Your task to perform on an android device: manage bookmarks in the chrome app Image 0: 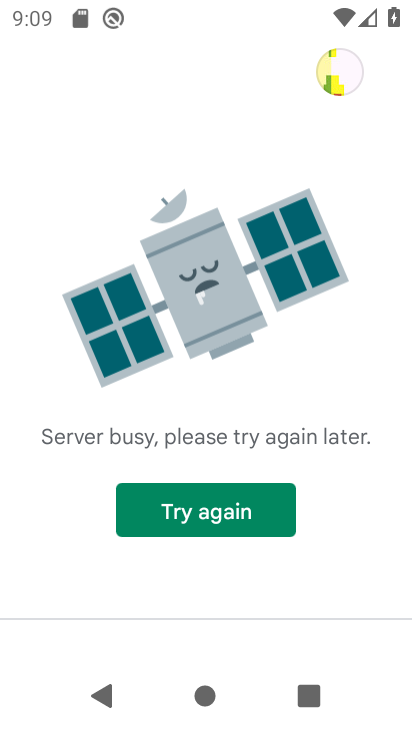
Step 0: press home button
Your task to perform on an android device: manage bookmarks in the chrome app Image 1: 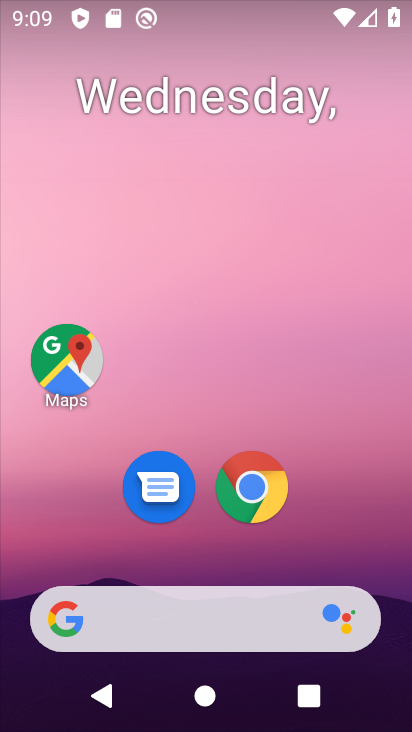
Step 1: click (266, 474)
Your task to perform on an android device: manage bookmarks in the chrome app Image 2: 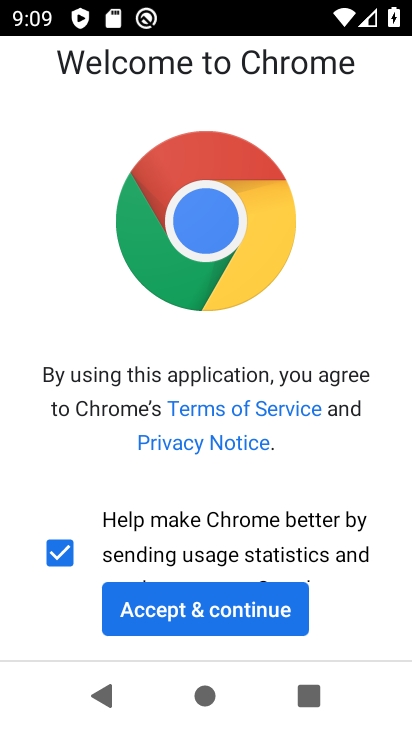
Step 2: click (220, 605)
Your task to perform on an android device: manage bookmarks in the chrome app Image 3: 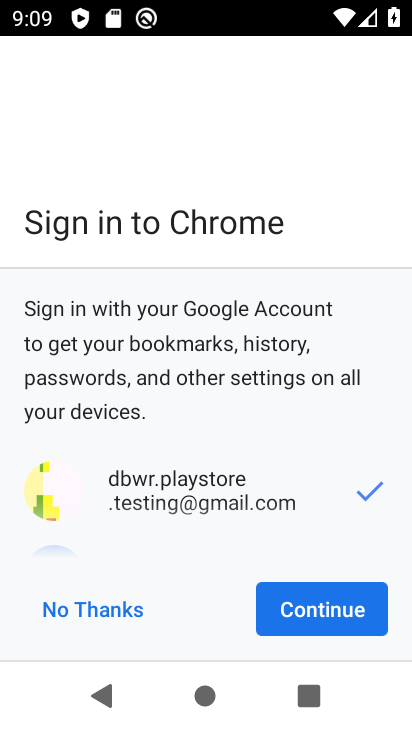
Step 3: click (283, 605)
Your task to perform on an android device: manage bookmarks in the chrome app Image 4: 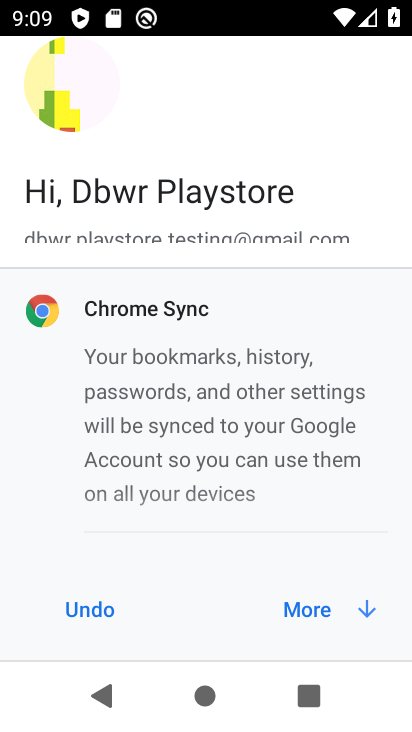
Step 4: click (320, 609)
Your task to perform on an android device: manage bookmarks in the chrome app Image 5: 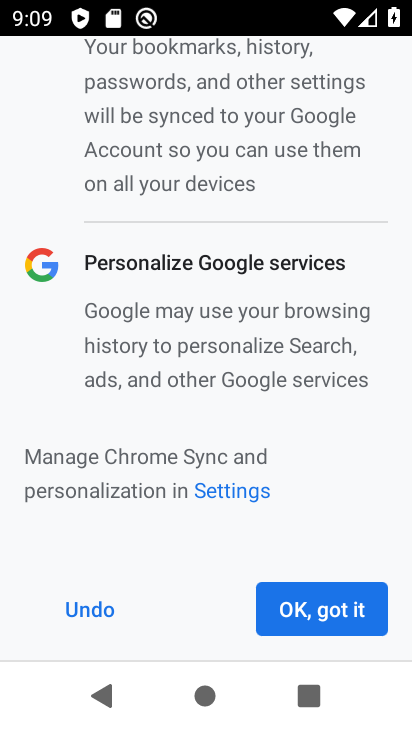
Step 5: click (303, 612)
Your task to perform on an android device: manage bookmarks in the chrome app Image 6: 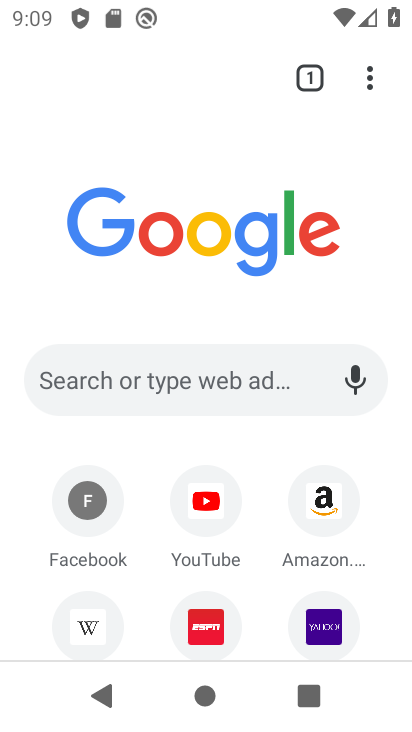
Step 6: drag from (370, 81) to (124, 315)
Your task to perform on an android device: manage bookmarks in the chrome app Image 7: 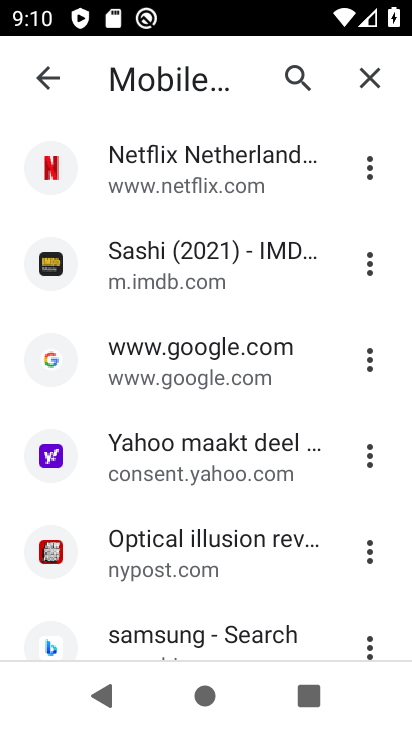
Step 7: click (369, 168)
Your task to perform on an android device: manage bookmarks in the chrome app Image 8: 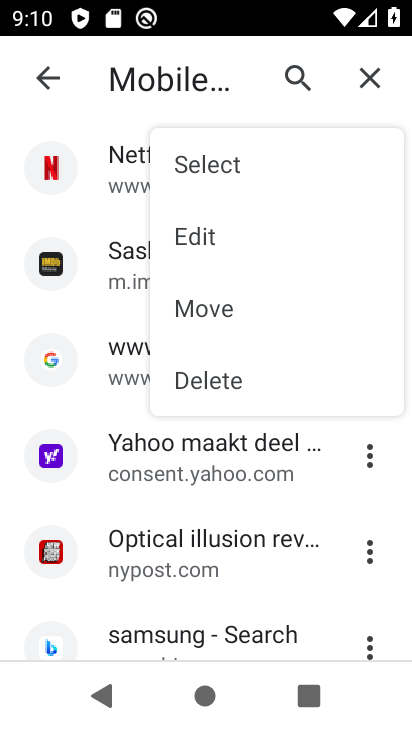
Step 8: click (217, 238)
Your task to perform on an android device: manage bookmarks in the chrome app Image 9: 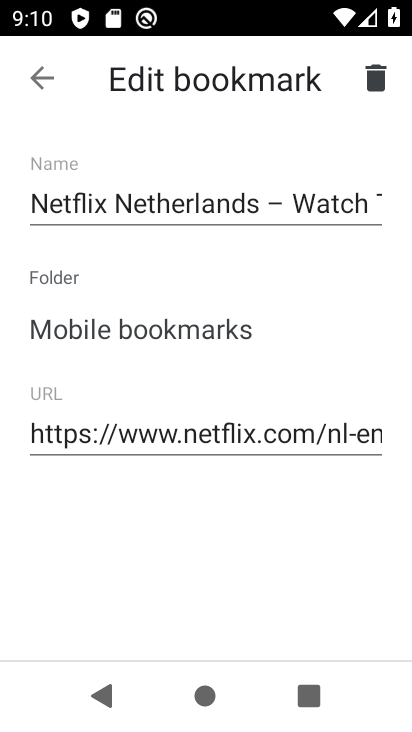
Step 9: click (371, 85)
Your task to perform on an android device: manage bookmarks in the chrome app Image 10: 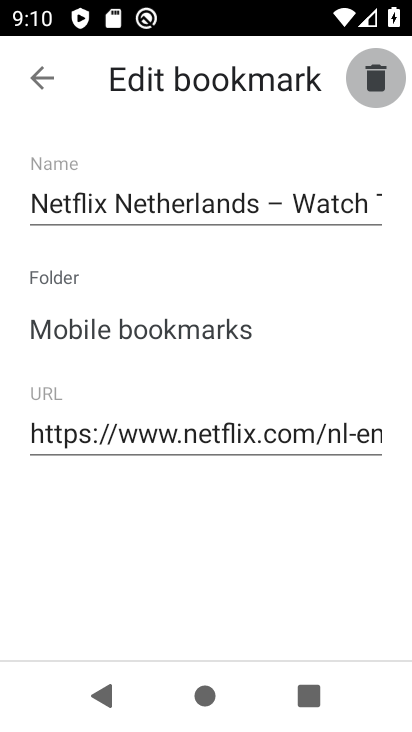
Step 10: task complete